Your task to perform on an android device: set the timer Image 0: 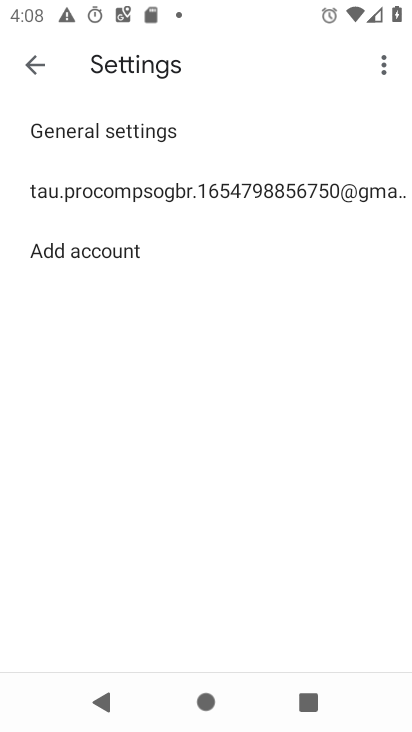
Step 0: press home button
Your task to perform on an android device: set the timer Image 1: 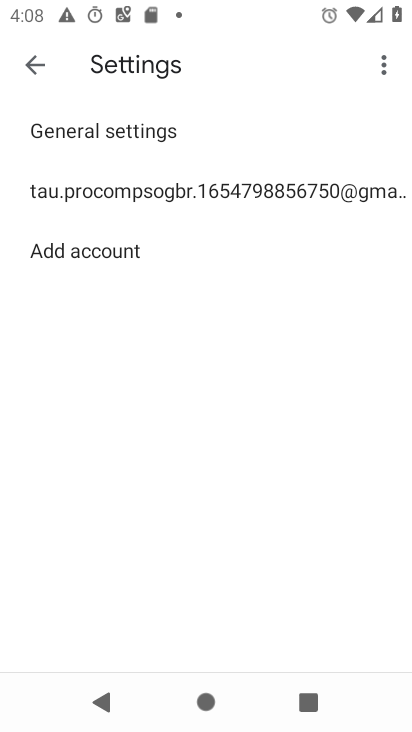
Step 1: press home button
Your task to perform on an android device: set the timer Image 2: 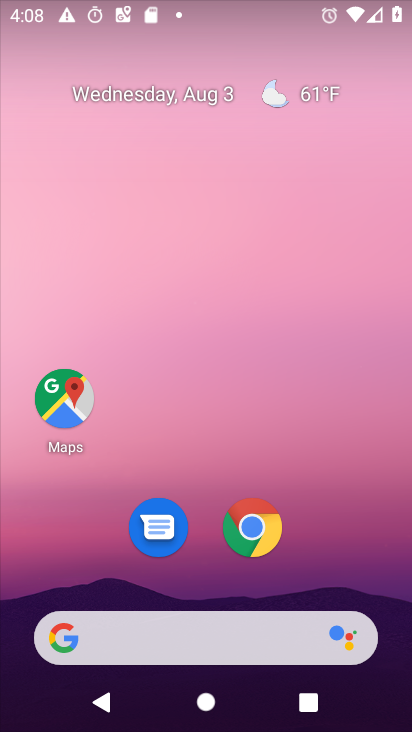
Step 2: drag from (331, 578) to (311, 88)
Your task to perform on an android device: set the timer Image 3: 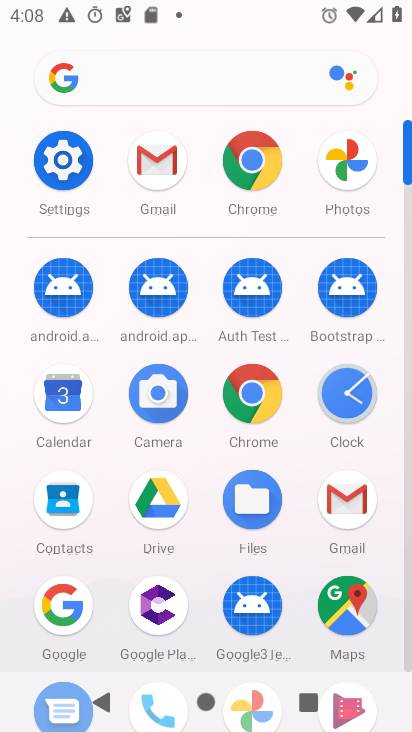
Step 3: click (337, 383)
Your task to perform on an android device: set the timer Image 4: 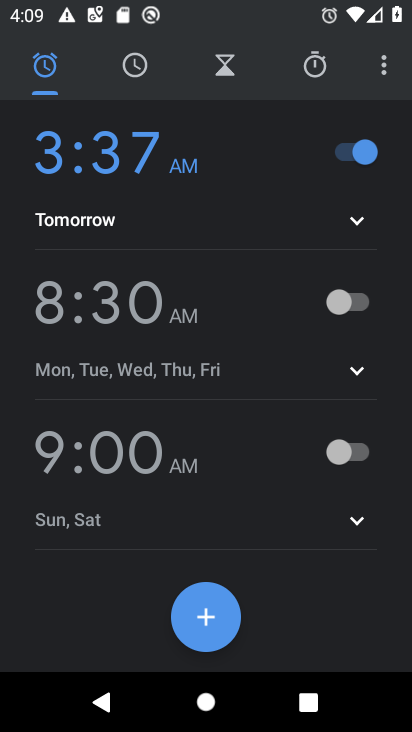
Step 4: click (236, 65)
Your task to perform on an android device: set the timer Image 5: 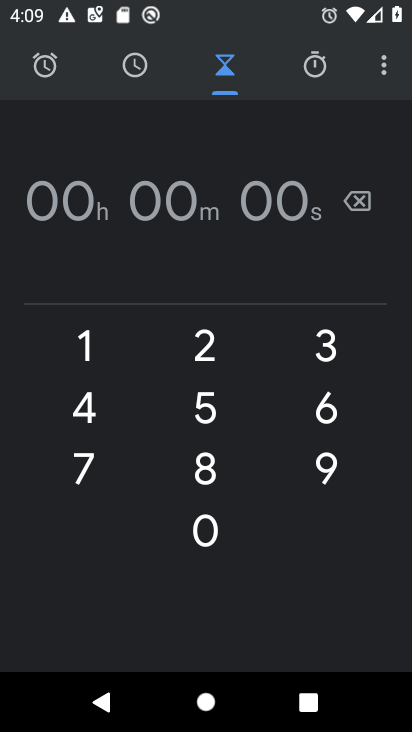
Step 5: click (195, 399)
Your task to perform on an android device: set the timer Image 6: 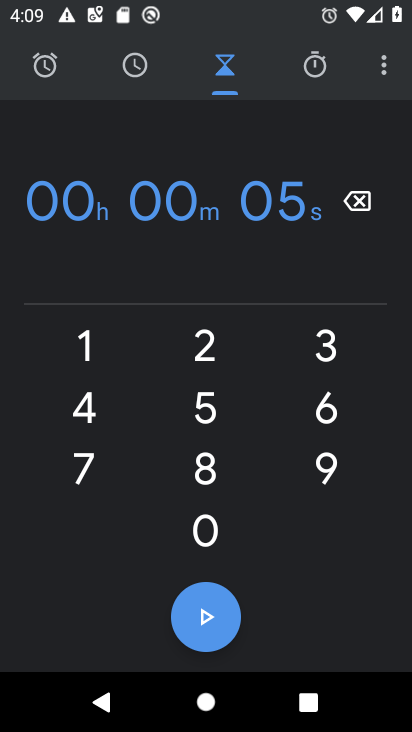
Step 6: task complete